Your task to perform on an android device: check google app version Image 0: 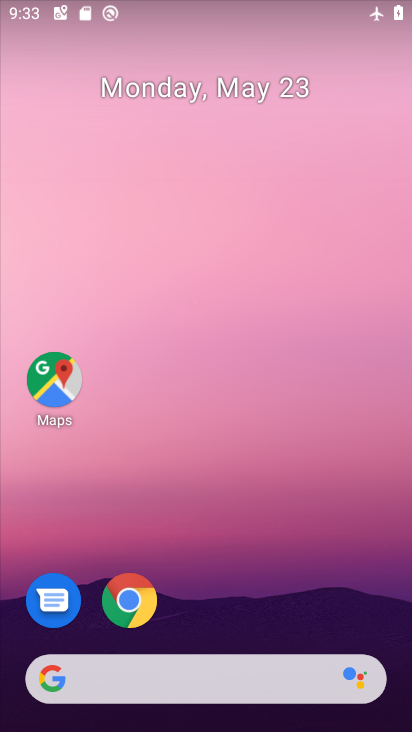
Step 0: drag from (205, 725) to (192, 0)
Your task to perform on an android device: check google app version Image 1: 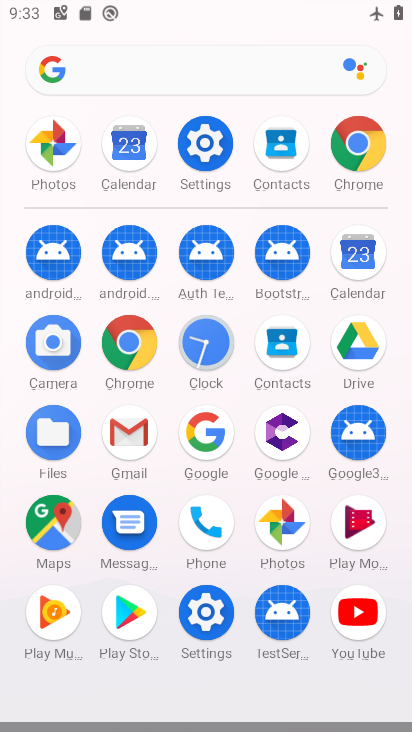
Step 1: click (210, 431)
Your task to perform on an android device: check google app version Image 2: 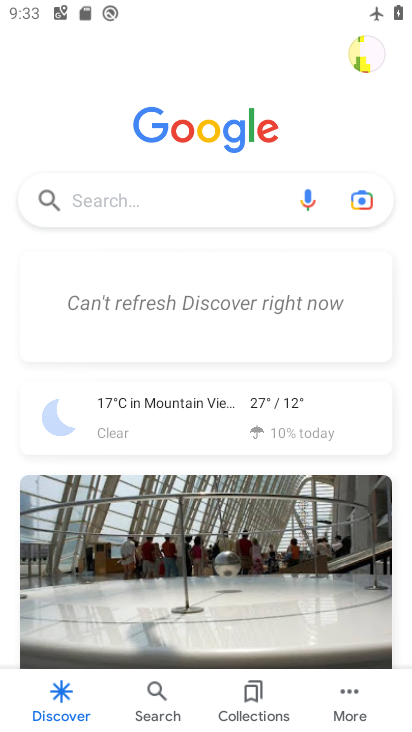
Step 2: click (349, 688)
Your task to perform on an android device: check google app version Image 3: 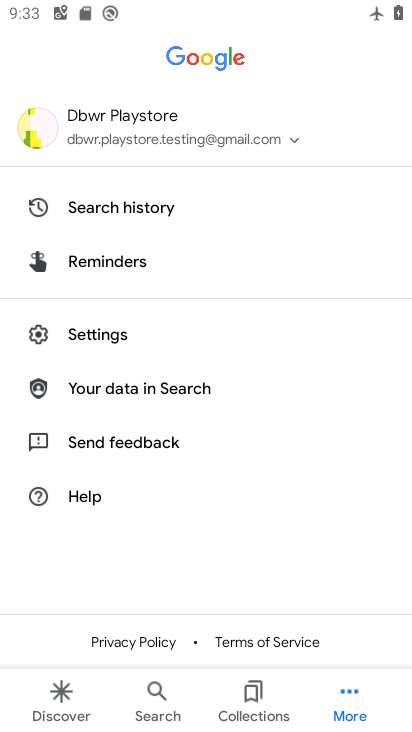
Step 3: click (83, 330)
Your task to perform on an android device: check google app version Image 4: 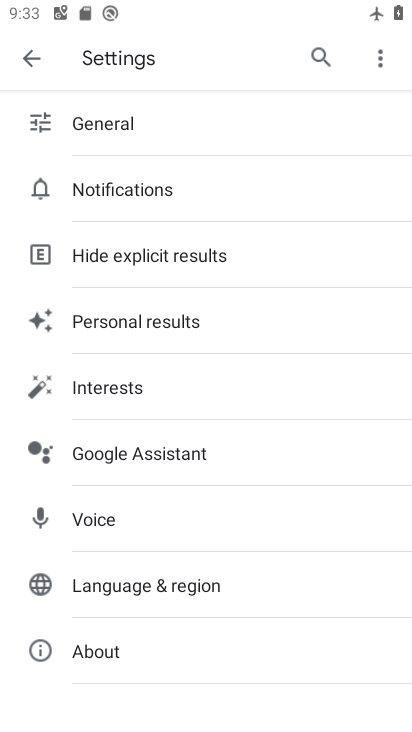
Step 4: click (105, 643)
Your task to perform on an android device: check google app version Image 5: 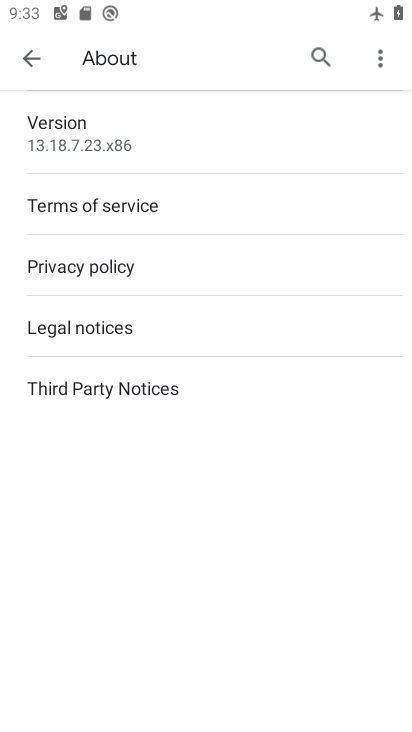
Step 5: task complete